Your task to perform on an android device: turn off picture-in-picture Image 0: 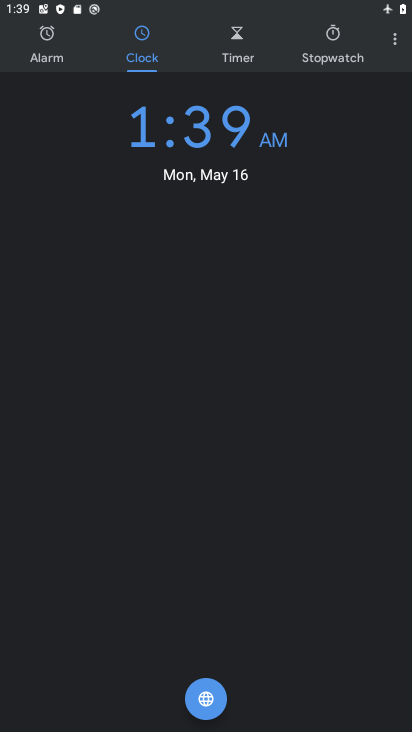
Step 0: press home button
Your task to perform on an android device: turn off picture-in-picture Image 1: 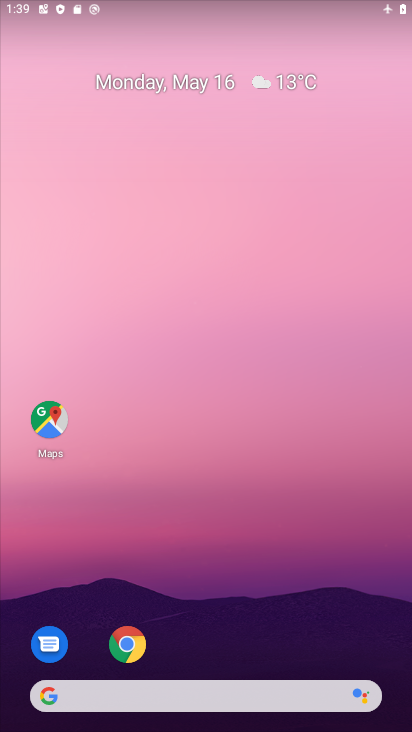
Step 1: drag from (246, 598) to (284, 183)
Your task to perform on an android device: turn off picture-in-picture Image 2: 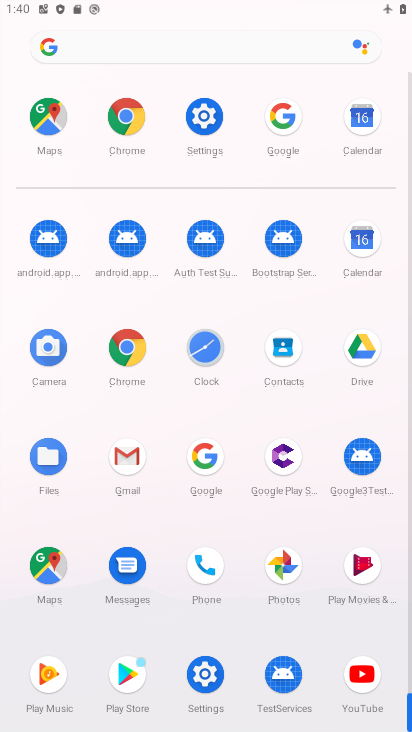
Step 2: click (214, 145)
Your task to perform on an android device: turn off picture-in-picture Image 3: 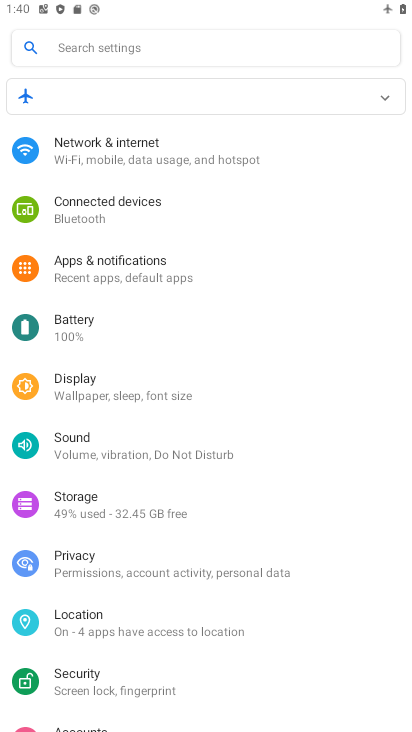
Step 3: click (185, 277)
Your task to perform on an android device: turn off picture-in-picture Image 4: 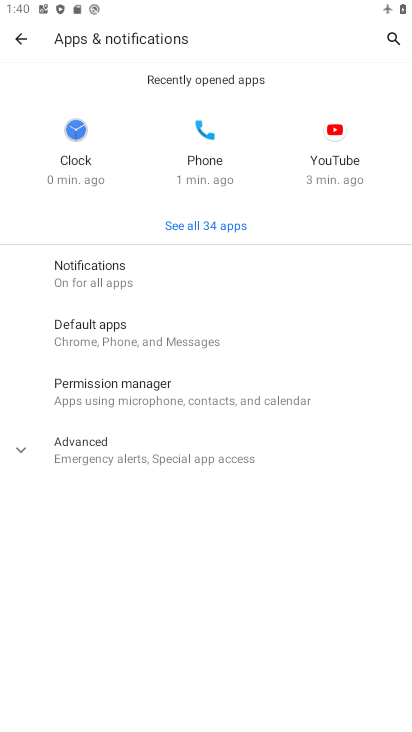
Step 4: click (170, 452)
Your task to perform on an android device: turn off picture-in-picture Image 5: 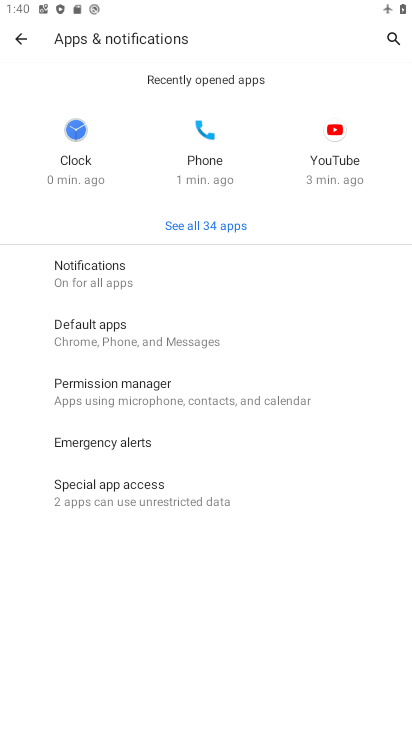
Step 5: click (177, 493)
Your task to perform on an android device: turn off picture-in-picture Image 6: 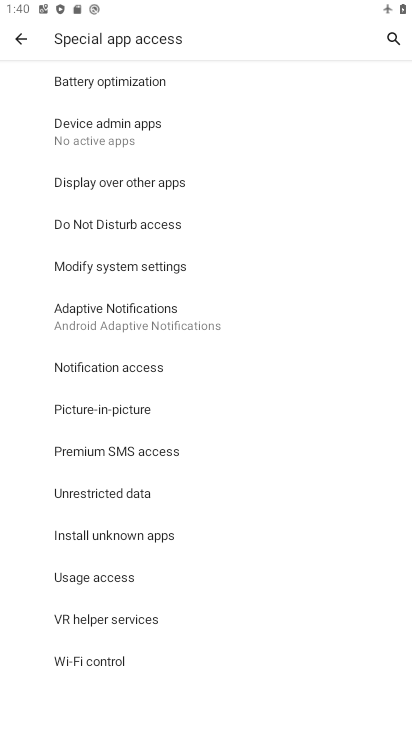
Step 6: click (128, 418)
Your task to perform on an android device: turn off picture-in-picture Image 7: 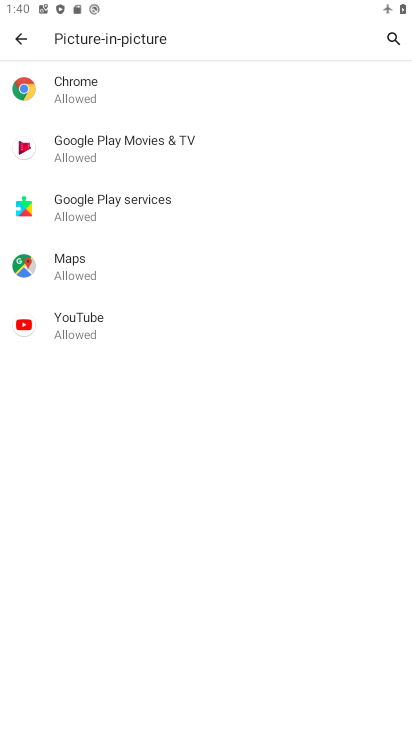
Step 7: click (184, 94)
Your task to perform on an android device: turn off picture-in-picture Image 8: 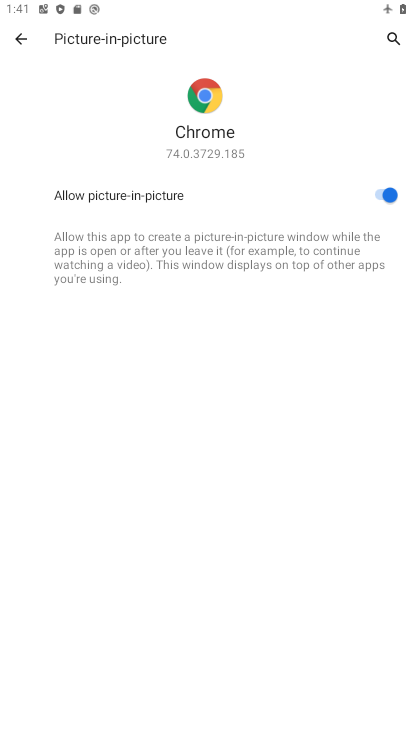
Step 8: click (376, 196)
Your task to perform on an android device: turn off picture-in-picture Image 9: 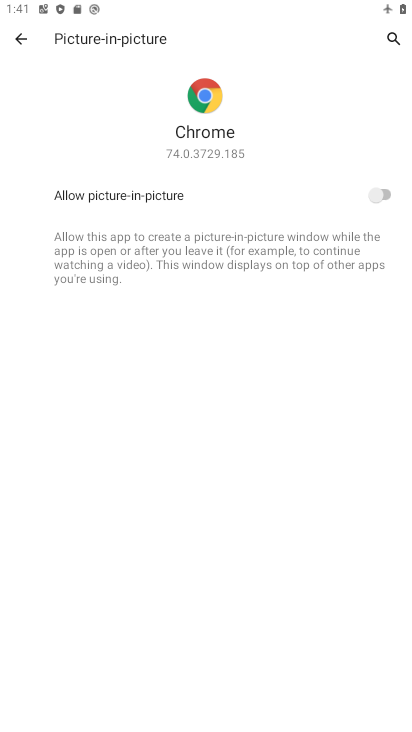
Step 9: task complete